Your task to perform on an android device: toggle improve location accuracy Image 0: 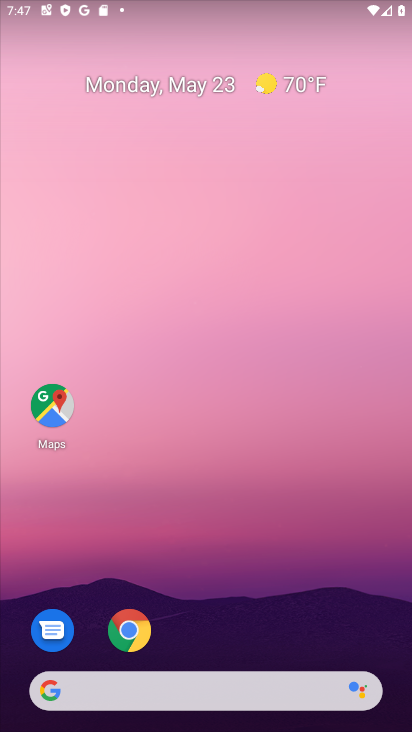
Step 0: drag from (291, 646) to (155, 183)
Your task to perform on an android device: toggle improve location accuracy Image 1: 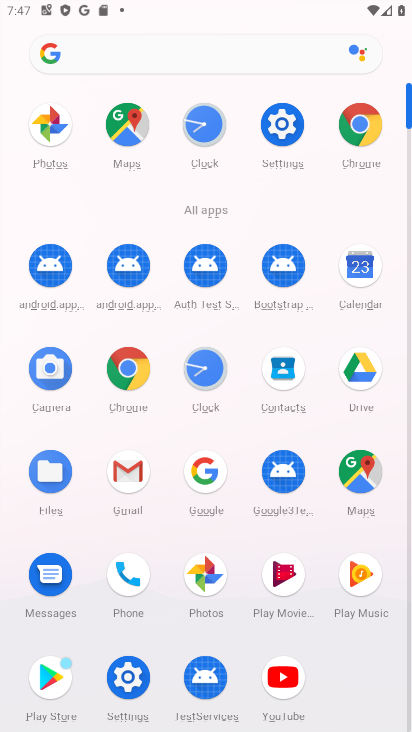
Step 1: click (260, 127)
Your task to perform on an android device: toggle improve location accuracy Image 2: 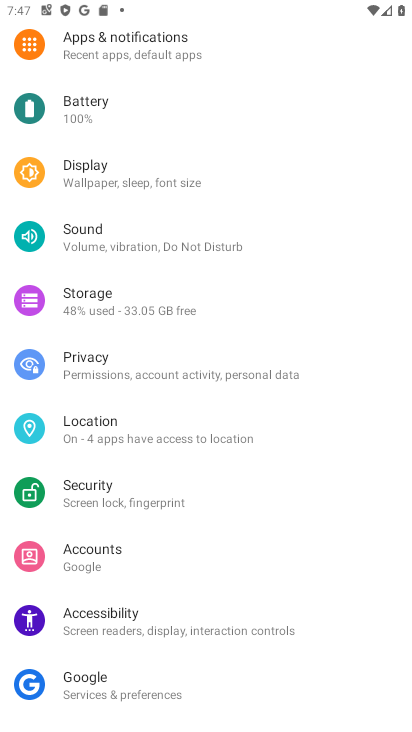
Step 2: drag from (241, 294) to (200, 281)
Your task to perform on an android device: toggle improve location accuracy Image 3: 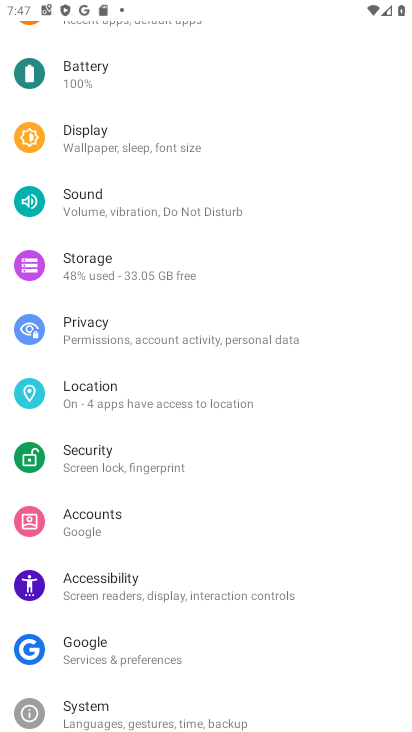
Step 3: click (101, 383)
Your task to perform on an android device: toggle improve location accuracy Image 4: 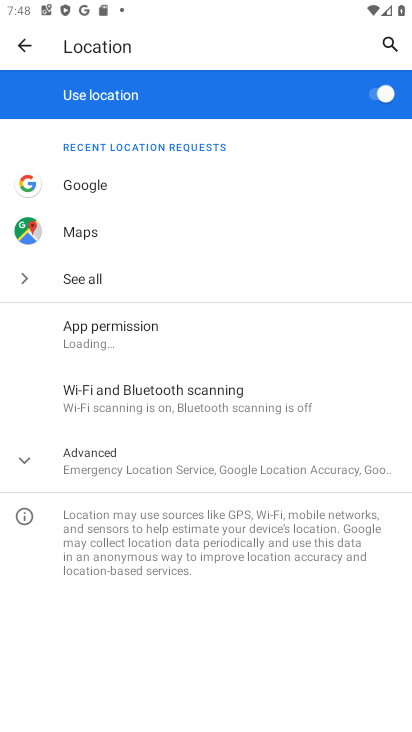
Step 4: click (86, 451)
Your task to perform on an android device: toggle improve location accuracy Image 5: 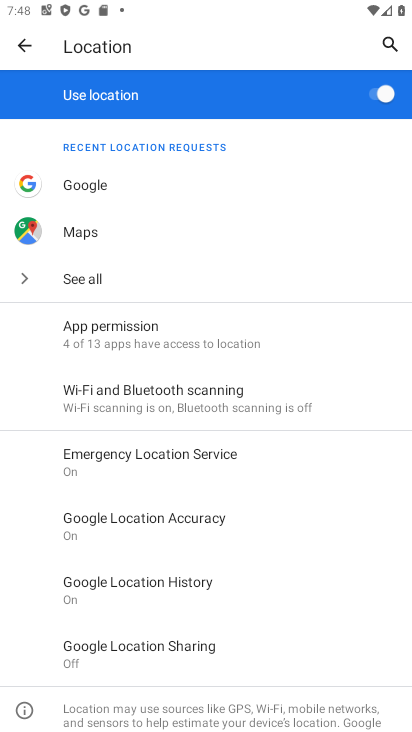
Step 5: click (182, 536)
Your task to perform on an android device: toggle improve location accuracy Image 6: 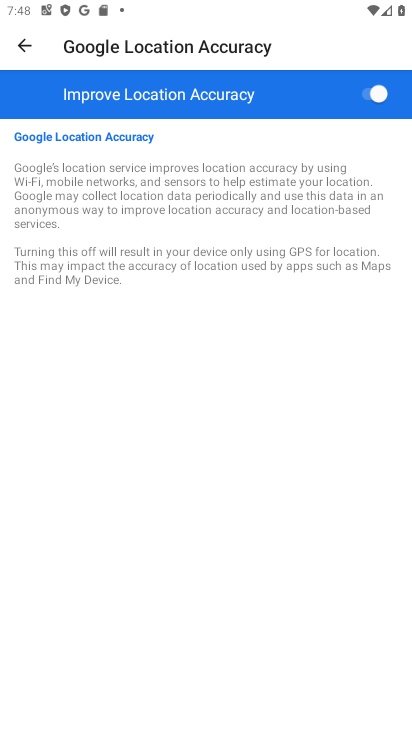
Step 6: click (377, 100)
Your task to perform on an android device: toggle improve location accuracy Image 7: 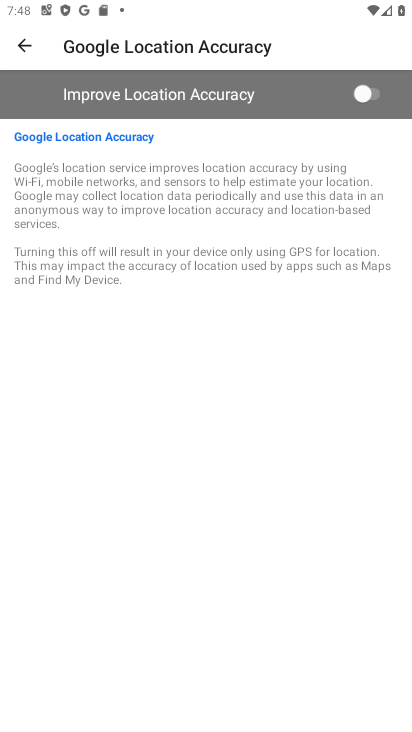
Step 7: task complete